Your task to perform on an android device: Go to settings Image 0: 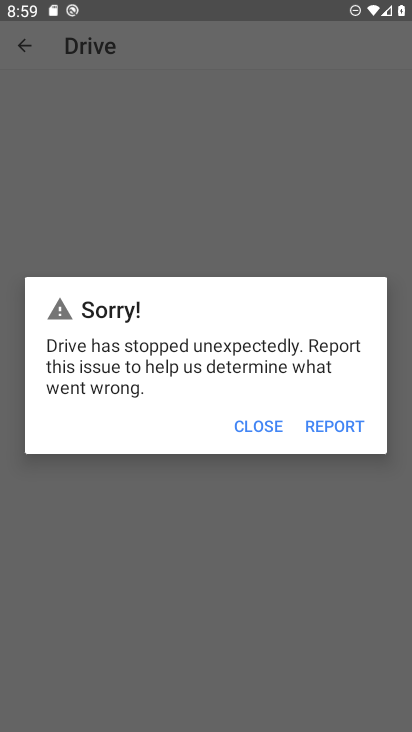
Step 0: press home button
Your task to perform on an android device: Go to settings Image 1: 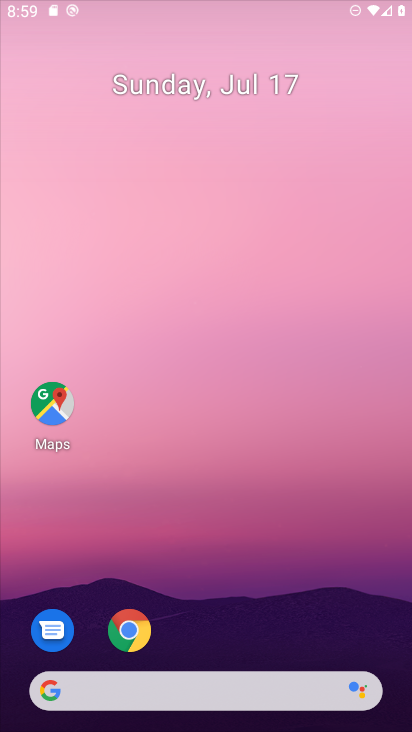
Step 1: drag from (194, 647) to (210, 197)
Your task to perform on an android device: Go to settings Image 2: 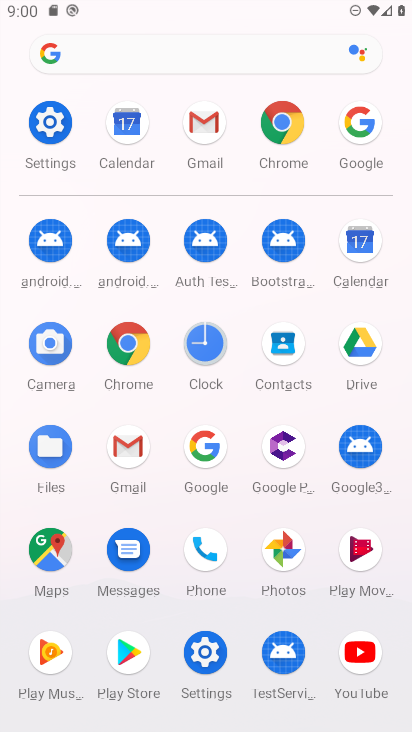
Step 2: click (47, 127)
Your task to perform on an android device: Go to settings Image 3: 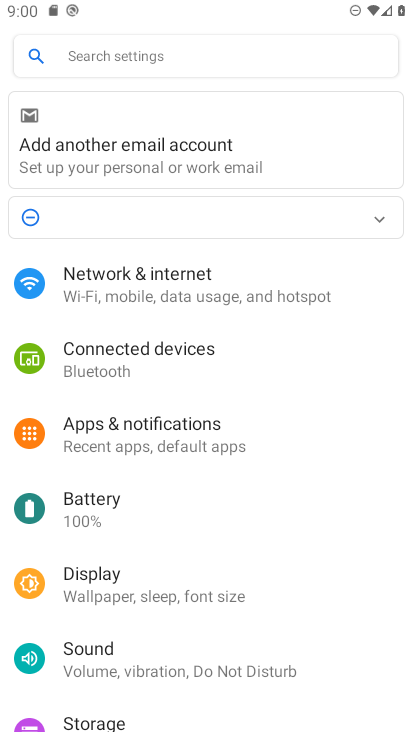
Step 3: task complete